Your task to perform on an android device: turn on translation in the chrome app Image 0: 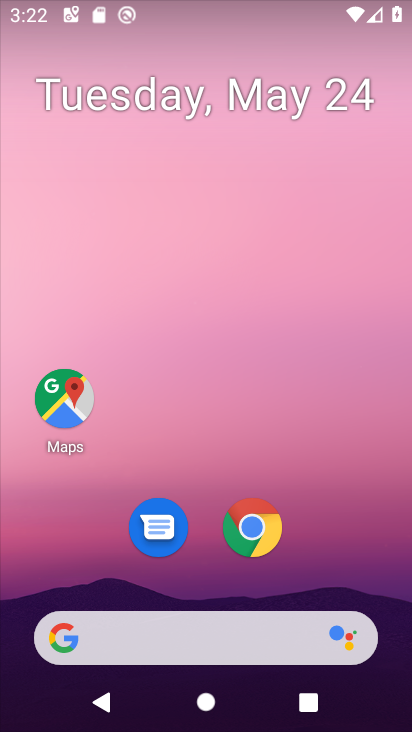
Step 0: click (259, 533)
Your task to perform on an android device: turn on translation in the chrome app Image 1: 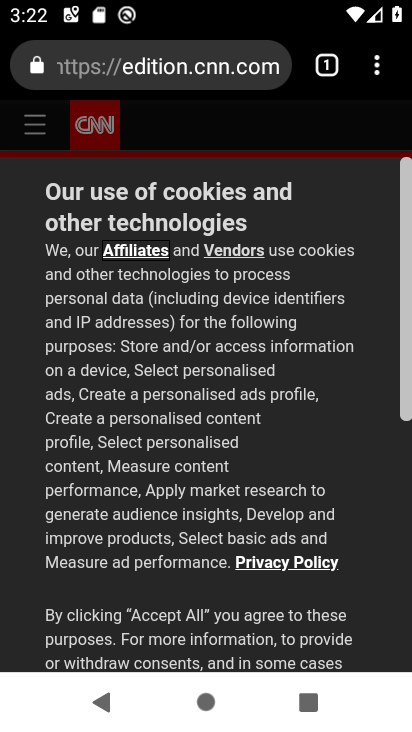
Step 1: click (376, 65)
Your task to perform on an android device: turn on translation in the chrome app Image 2: 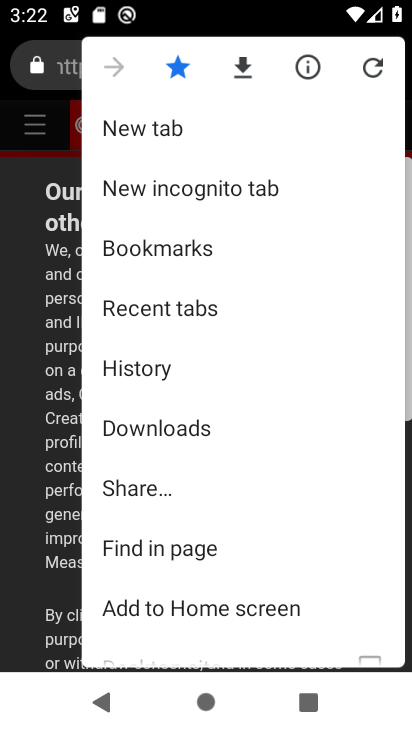
Step 2: drag from (279, 501) to (283, 151)
Your task to perform on an android device: turn on translation in the chrome app Image 3: 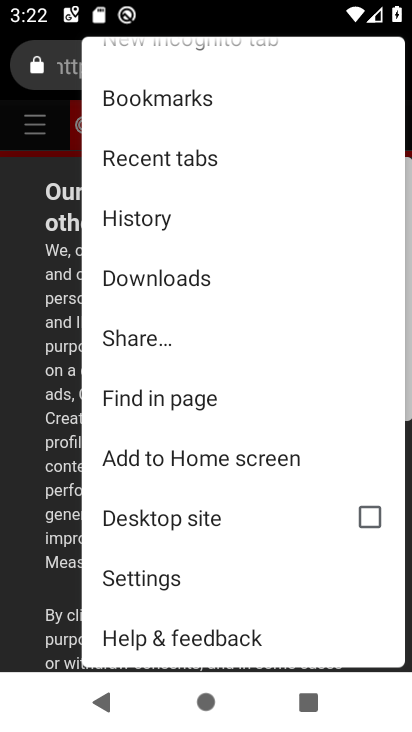
Step 3: click (125, 581)
Your task to perform on an android device: turn on translation in the chrome app Image 4: 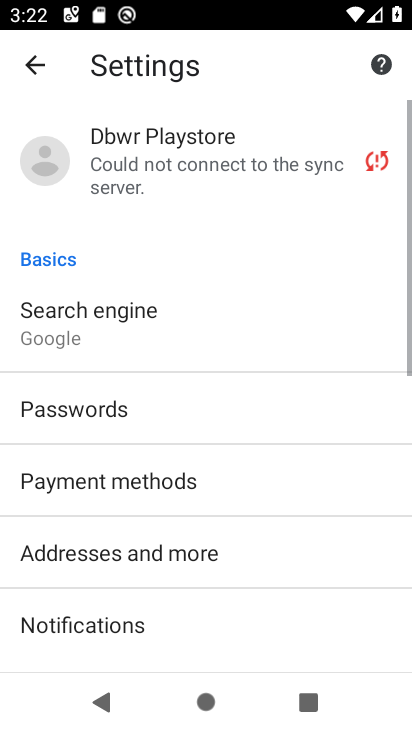
Step 4: drag from (208, 591) to (216, 238)
Your task to perform on an android device: turn on translation in the chrome app Image 5: 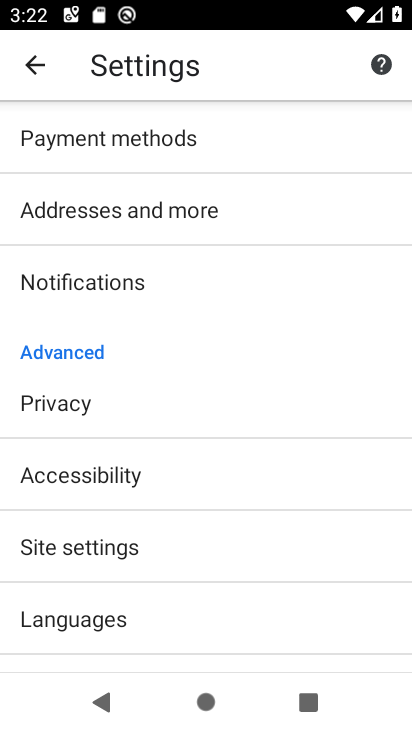
Step 5: click (99, 616)
Your task to perform on an android device: turn on translation in the chrome app Image 6: 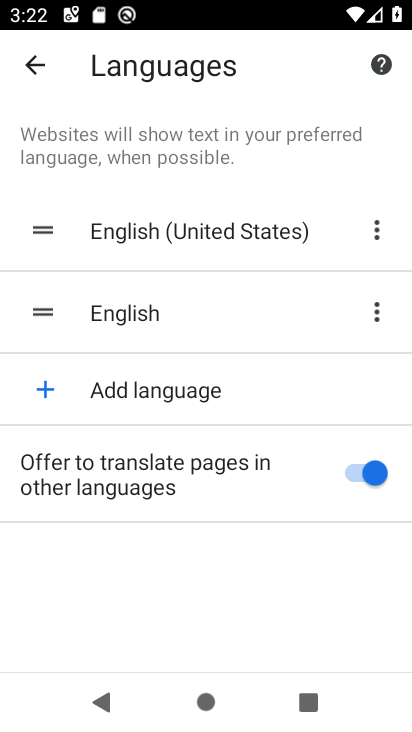
Step 6: task complete